Your task to perform on an android device: Show me productivity apps on the Play Store Image 0: 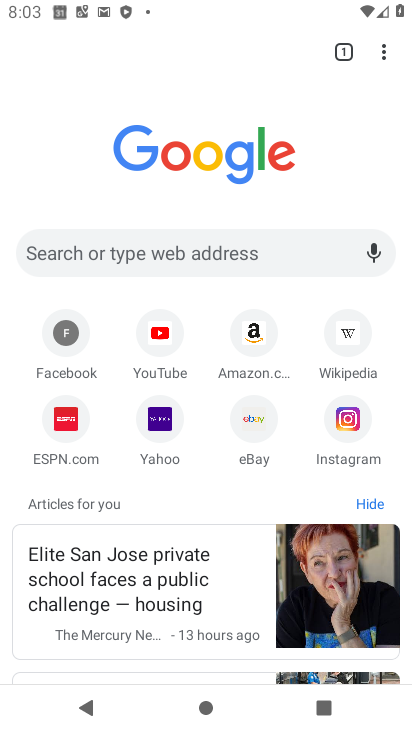
Step 0: press home button
Your task to perform on an android device: Show me productivity apps on the Play Store Image 1: 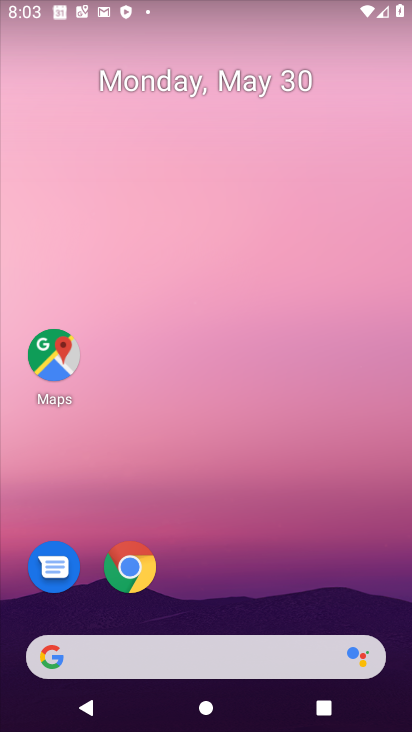
Step 1: drag from (276, 574) to (279, 57)
Your task to perform on an android device: Show me productivity apps on the Play Store Image 2: 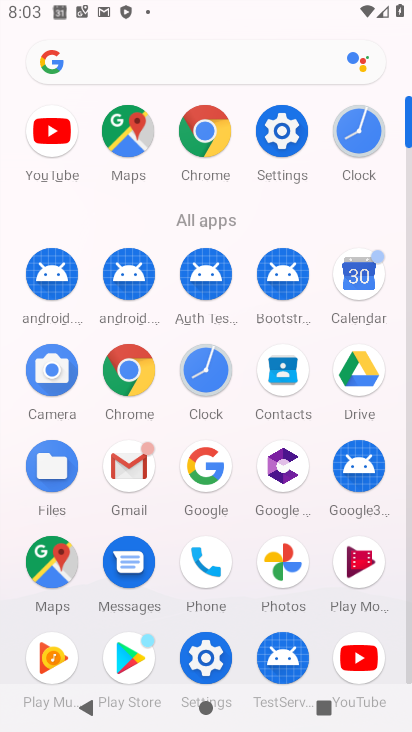
Step 2: click (143, 660)
Your task to perform on an android device: Show me productivity apps on the Play Store Image 3: 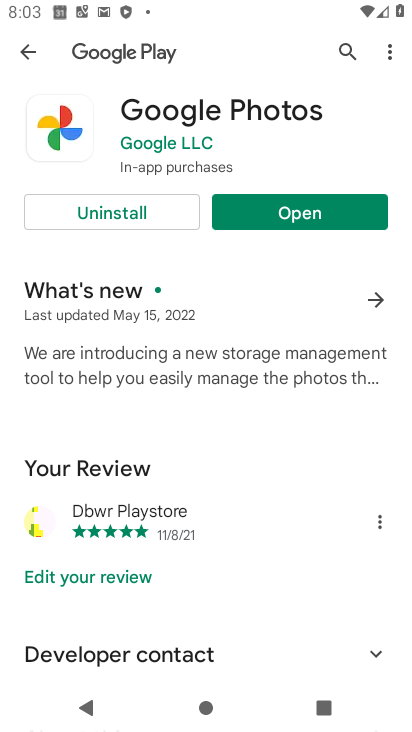
Step 3: click (31, 65)
Your task to perform on an android device: Show me productivity apps on the Play Store Image 4: 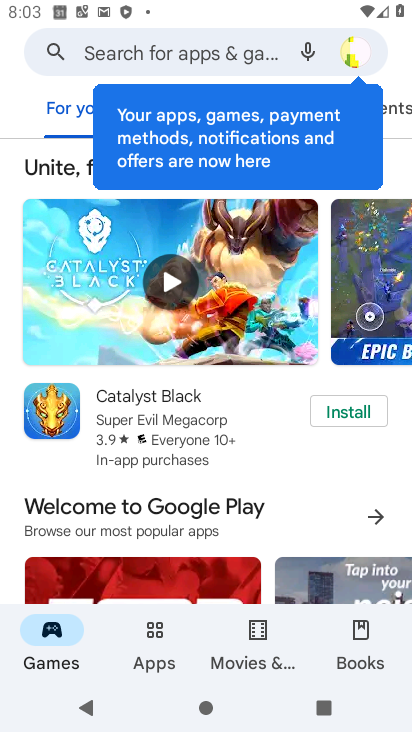
Step 4: click (152, 653)
Your task to perform on an android device: Show me productivity apps on the Play Store Image 5: 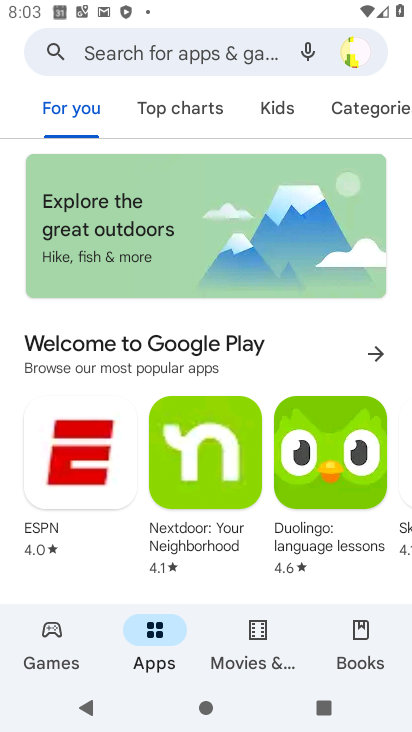
Step 5: click (185, 123)
Your task to perform on an android device: Show me productivity apps on the Play Store Image 6: 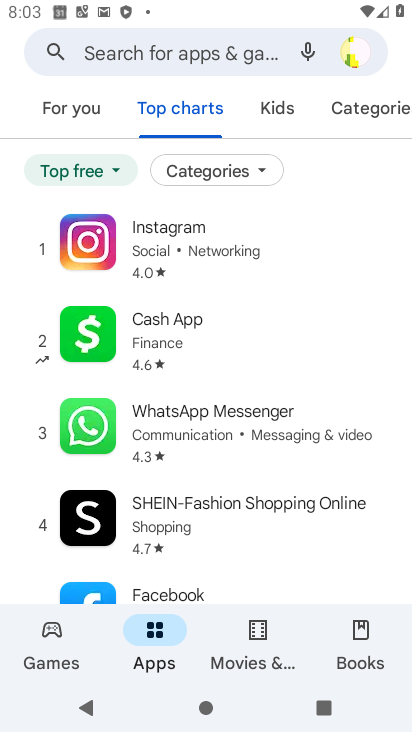
Step 6: click (236, 168)
Your task to perform on an android device: Show me productivity apps on the Play Store Image 7: 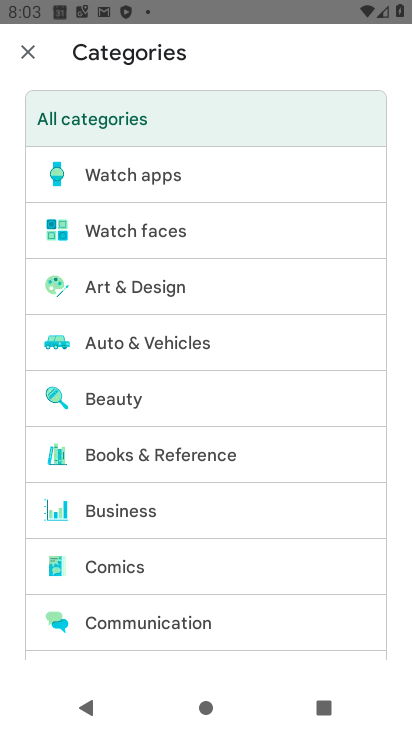
Step 7: drag from (234, 619) to (266, 227)
Your task to perform on an android device: Show me productivity apps on the Play Store Image 8: 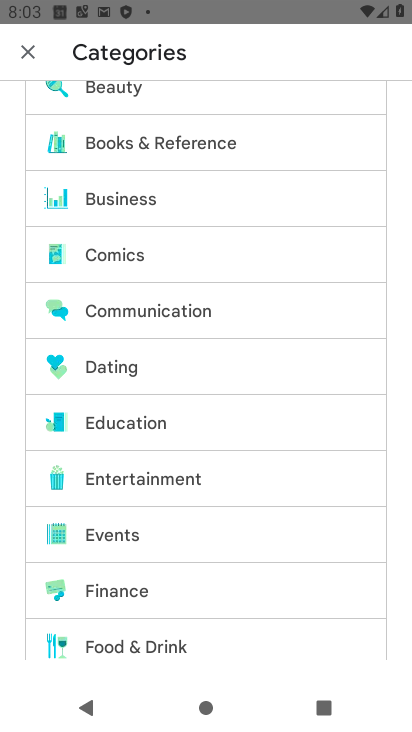
Step 8: drag from (157, 600) to (195, 118)
Your task to perform on an android device: Show me productivity apps on the Play Store Image 9: 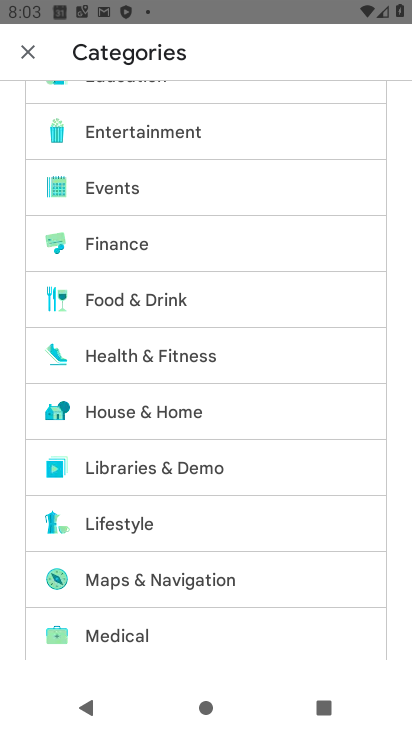
Step 9: drag from (165, 636) to (164, 180)
Your task to perform on an android device: Show me productivity apps on the Play Store Image 10: 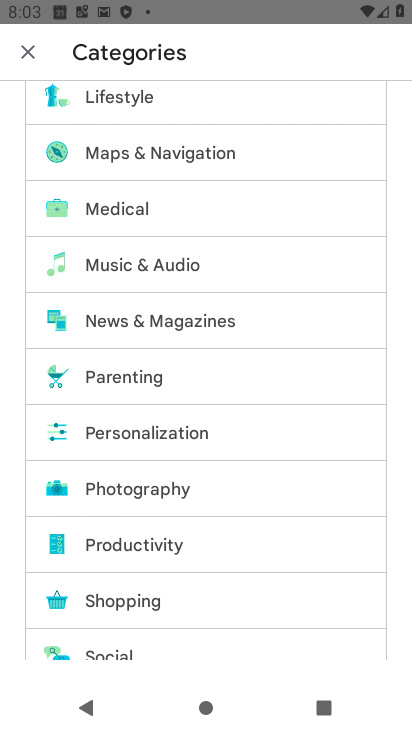
Step 10: click (194, 535)
Your task to perform on an android device: Show me productivity apps on the Play Store Image 11: 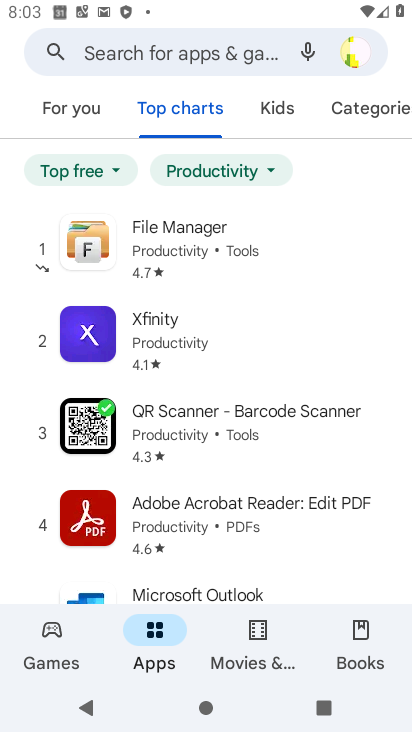
Step 11: task complete